Your task to perform on an android device: check storage Image 0: 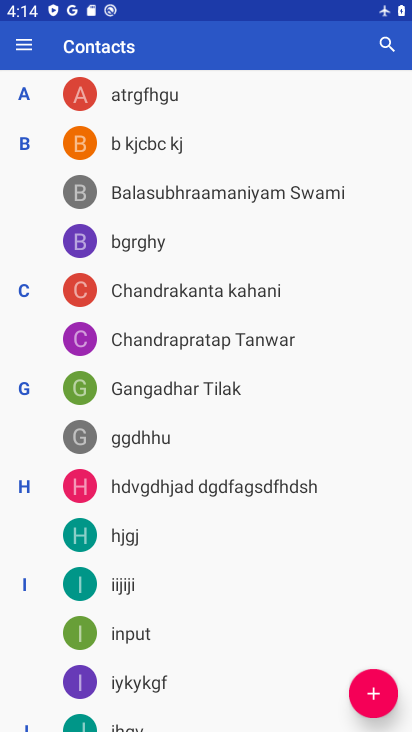
Step 0: press back button
Your task to perform on an android device: check storage Image 1: 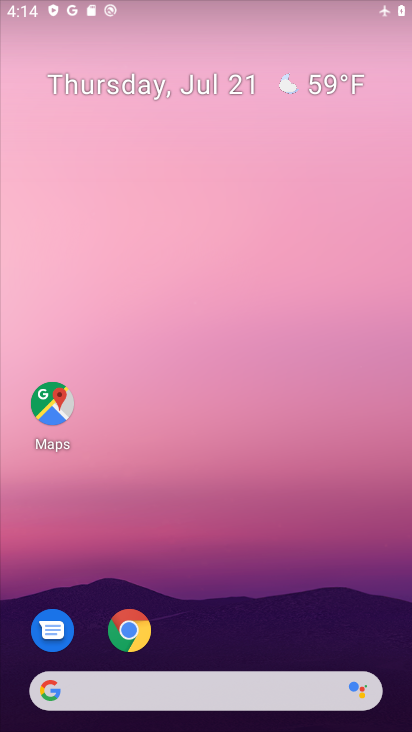
Step 1: drag from (236, 545) to (192, 213)
Your task to perform on an android device: check storage Image 2: 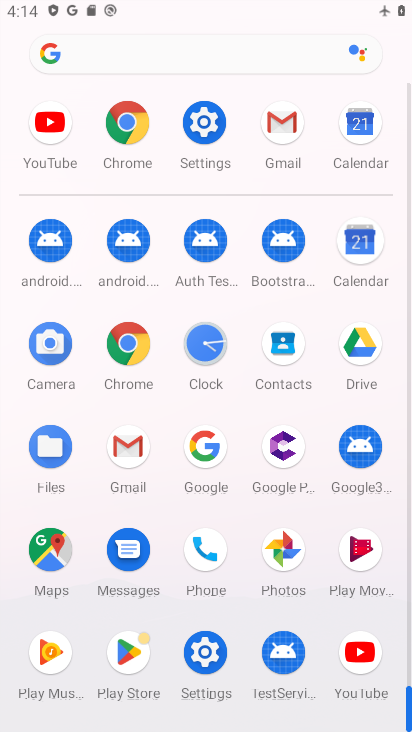
Step 2: click (204, 137)
Your task to perform on an android device: check storage Image 3: 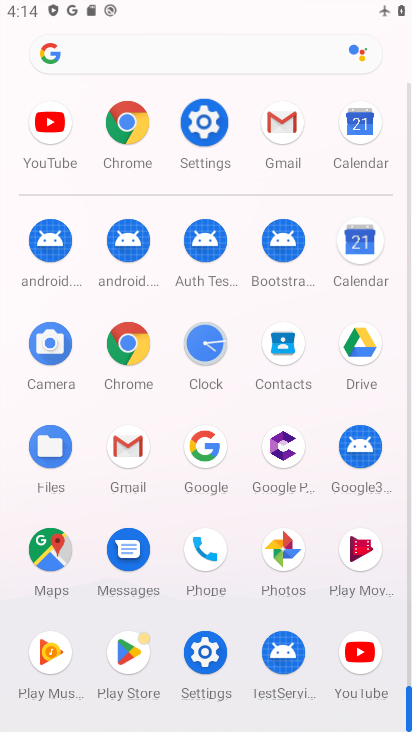
Step 3: click (203, 138)
Your task to perform on an android device: check storage Image 4: 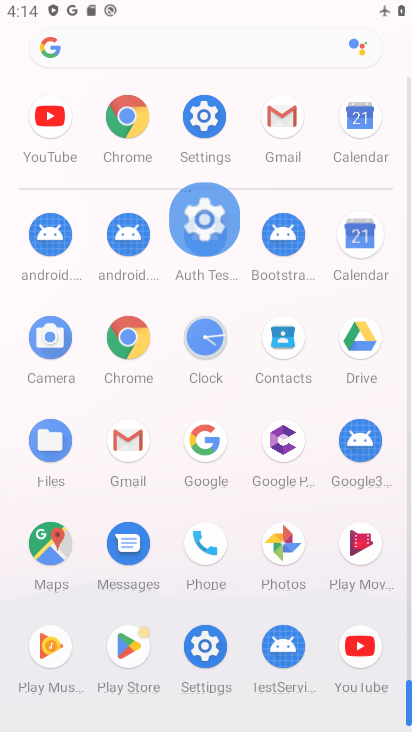
Step 4: click (203, 138)
Your task to perform on an android device: check storage Image 5: 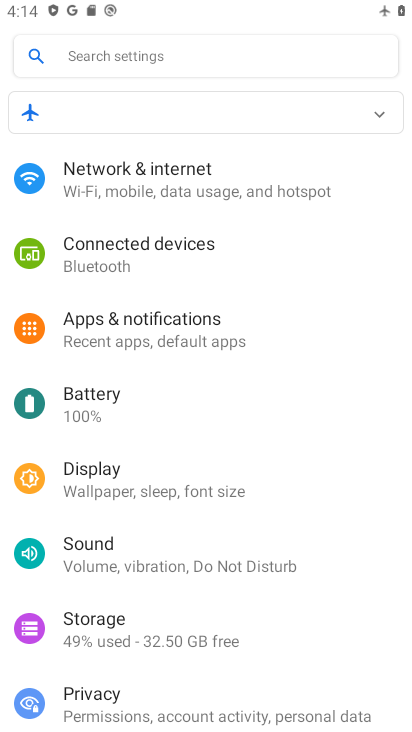
Step 5: click (101, 623)
Your task to perform on an android device: check storage Image 6: 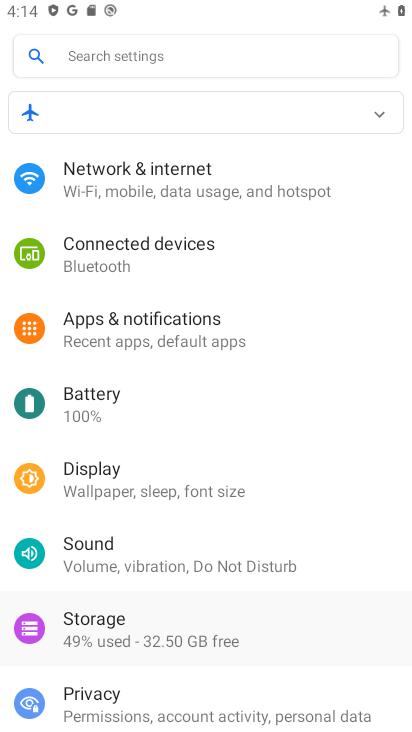
Step 6: click (101, 623)
Your task to perform on an android device: check storage Image 7: 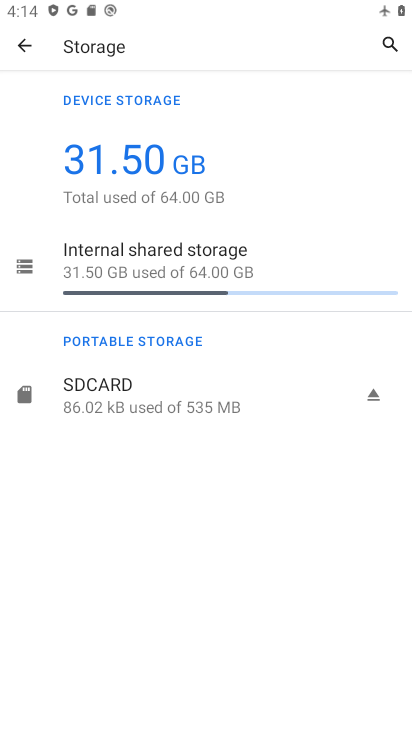
Step 7: task complete